Your task to perform on an android device: check storage Image 0: 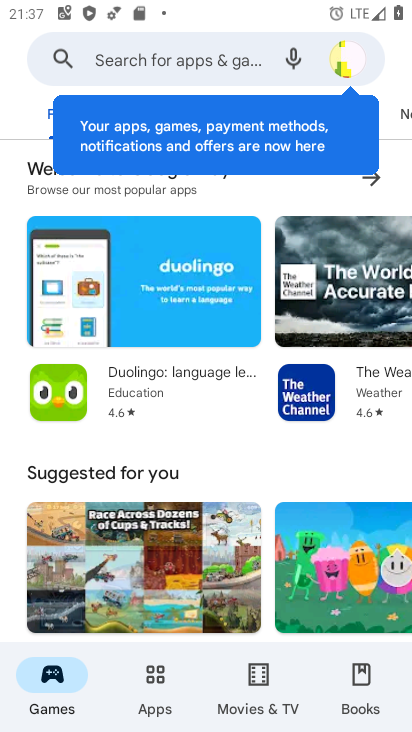
Step 0: press back button
Your task to perform on an android device: check storage Image 1: 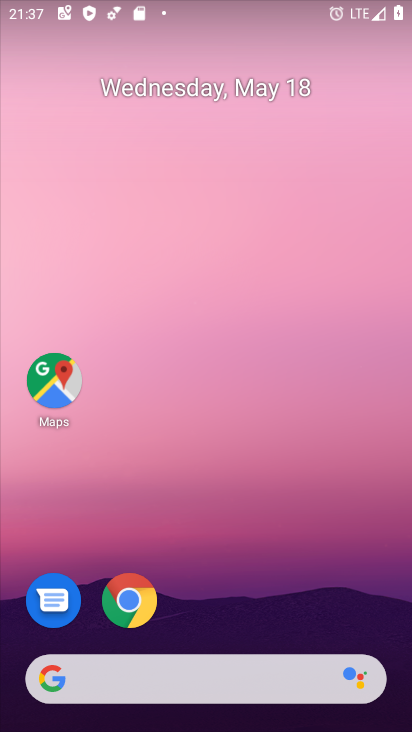
Step 1: drag from (249, 597) to (314, 66)
Your task to perform on an android device: check storage Image 2: 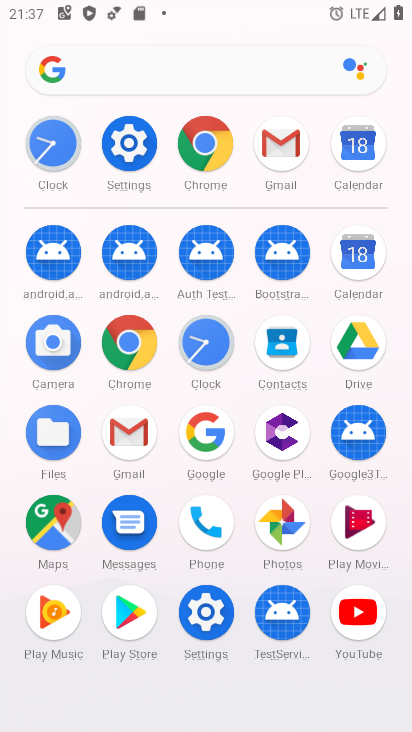
Step 2: click (131, 146)
Your task to perform on an android device: check storage Image 3: 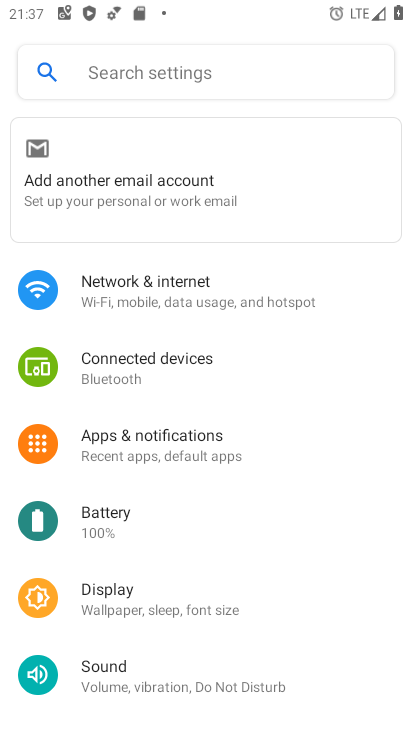
Step 3: drag from (156, 660) to (292, 163)
Your task to perform on an android device: check storage Image 4: 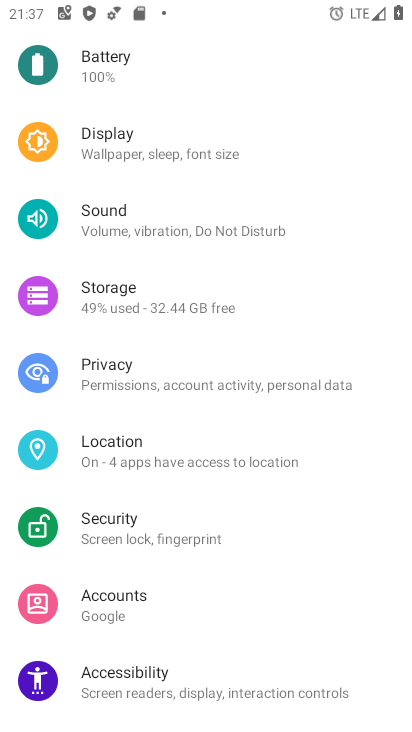
Step 4: click (125, 301)
Your task to perform on an android device: check storage Image 5: 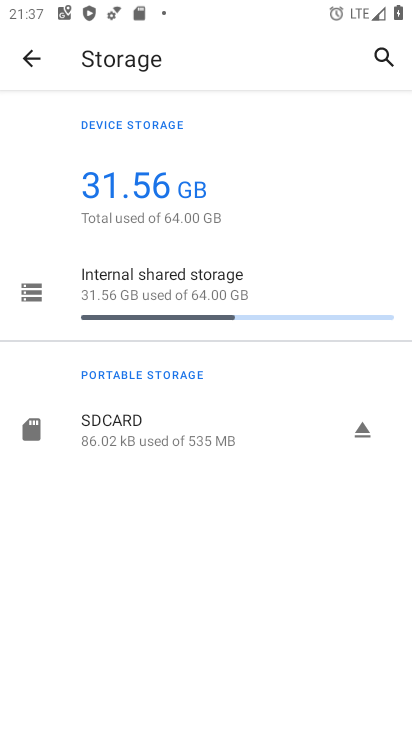
Step 5: task complete